Your task to perform on an android device: visit the assistant section in the google photos Image 0: 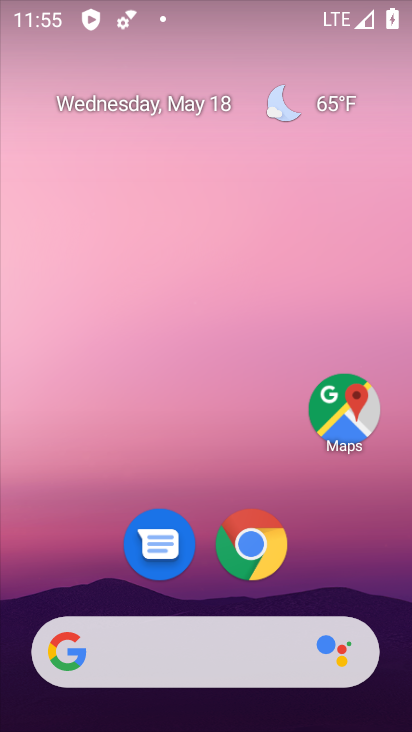
Step 0: drag from (394, 564) to (370, 146)
Your task to perform on an android device: visit the assistant section in the google photos Image 1: 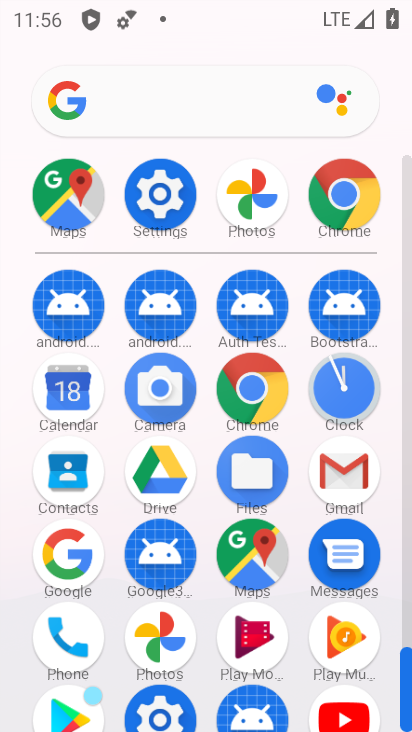
Step 1: click (134, 628)
Your task to perform on an android device: visit the assistant section in the google photos Image 2: 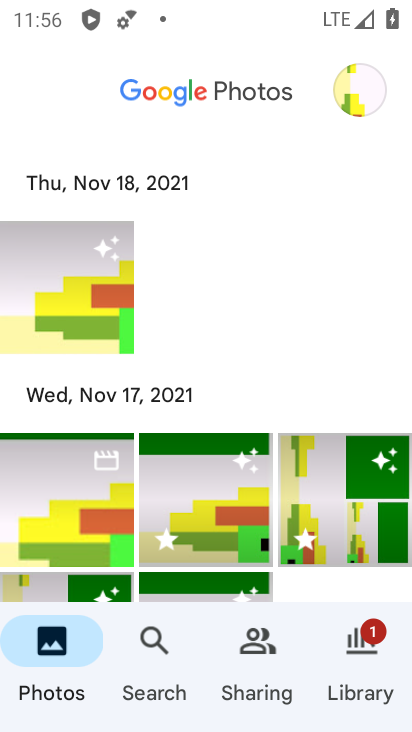
Step 2: task complete